Your task to perform on an android device: install app "The Home Depot" Image 0: 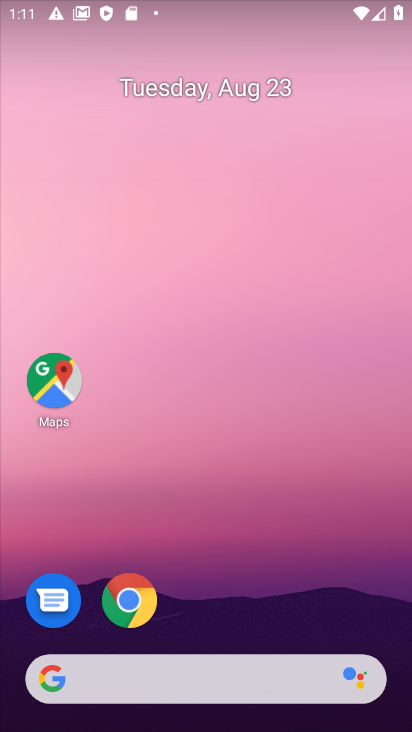
Step 0: drag from (198, 640) to (238, 110)
Your task to perform on an android device: install app "The Home Depot" Image 1: 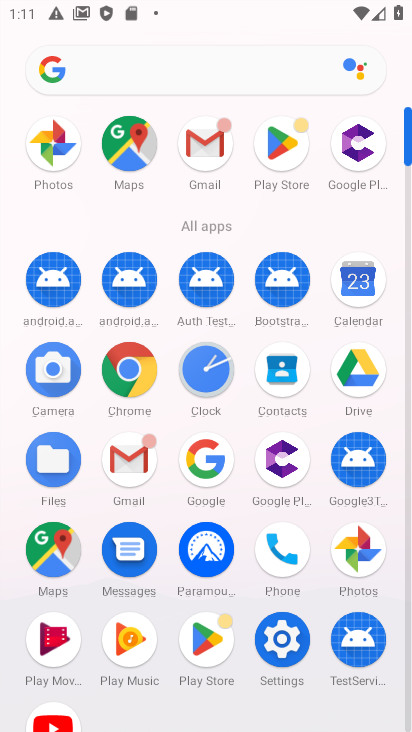
Step 1: click (206, 649)
Your task to perform on an android device: install app "The Home Depot" Image 2: 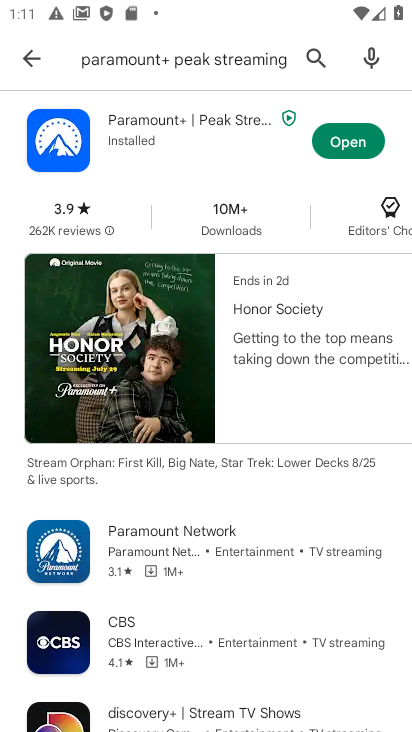
Step 2: click (307, 54)
Your task to perform on an android device: install app "The Home Depot" Image 3: 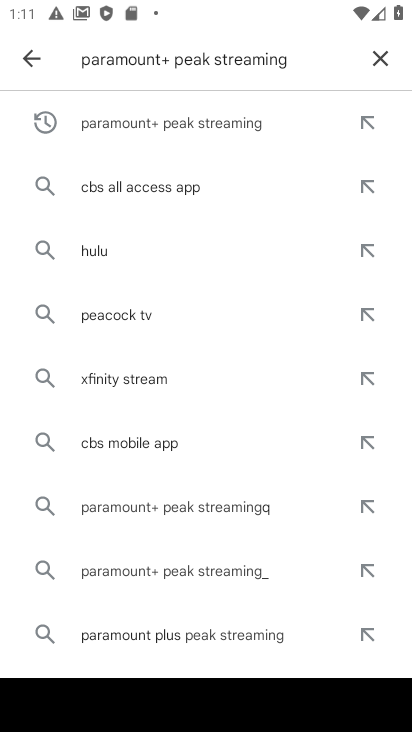
Step 3: click (382, 65)
Your task to perform on an android device: install app "The Home Depot" Image 4: 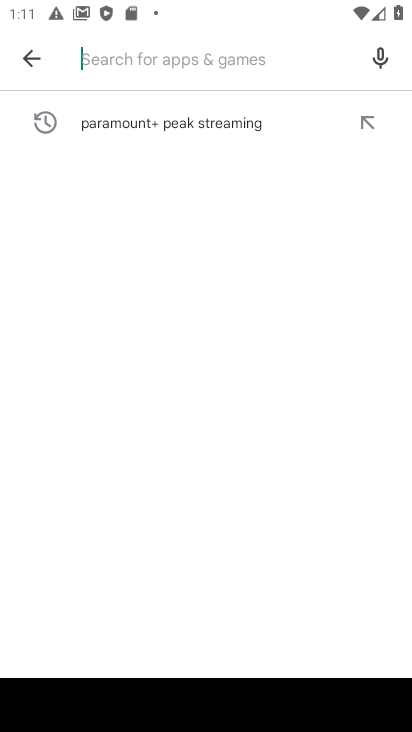
Step 4: type "The Home Depot"
Your task to perform on an android device: install app "The Home Depot" Image 5: 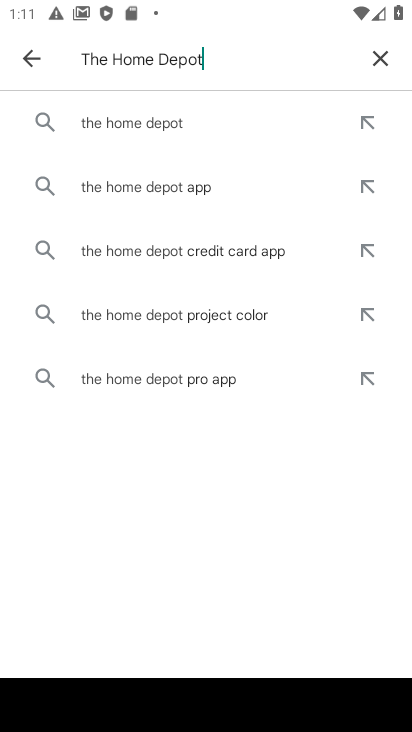
Step 5: click (106, 125)
Your task to perform on an android device: install app "The Home Depot" Image 6: 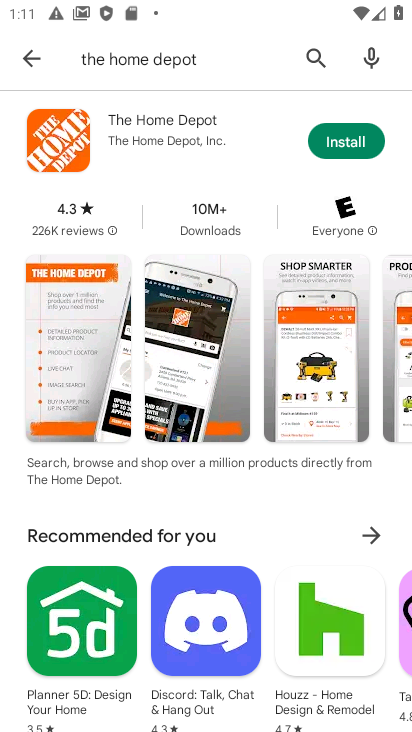
Step 6: click (326, 147)
Your task to perform on an android device: install app "The Home Depot" Image 7: 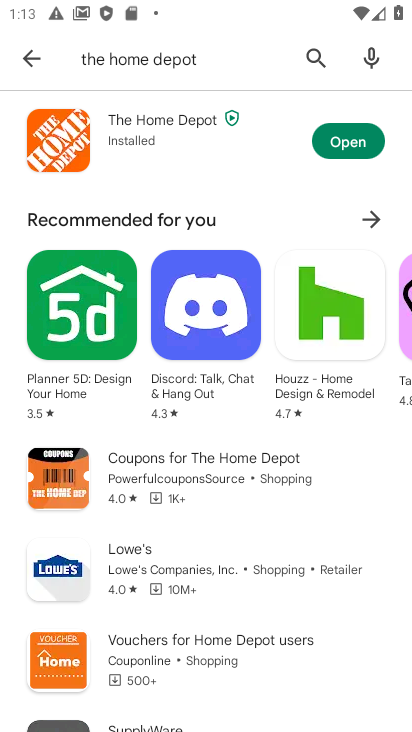
Step 7: click (355, 143)
Your task to perform on an android device: install app "The Home Depot" Image 8: 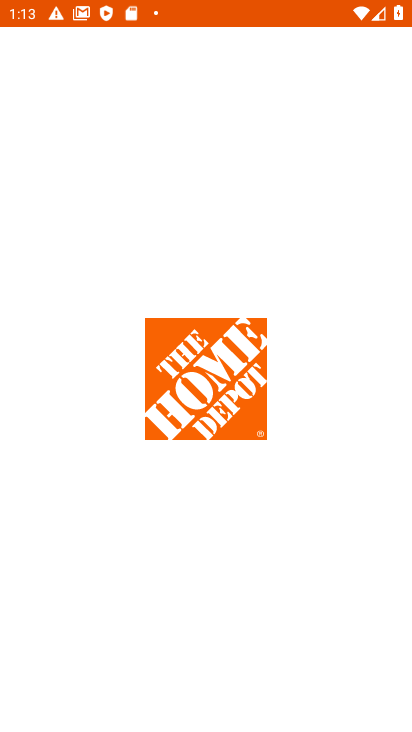
Step 8: task complete